Your task to perform on an android device: Search for pizza restaurants on Maps Image 0: 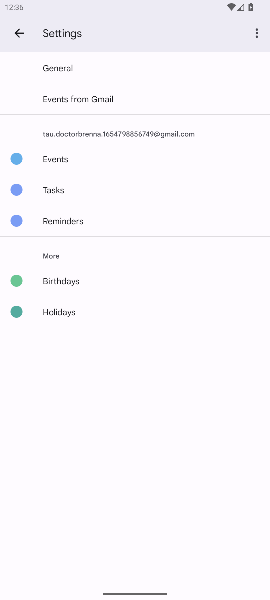
Step 0: press home button
Your task to perform on an android device: Search for pizza restaurants on Maps Image 1: 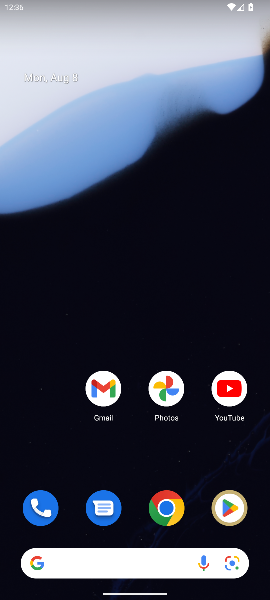
Step 1: drag from (216, 471) to (197, 188)
Your task to perform on an android device: Search for pizza restaurants on Maps Image 2: 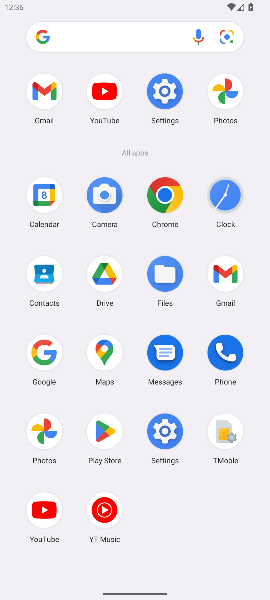
Step 2: click (109, 359)
Your task to perform on an android device: Search for pizza restaurants on Maps Image 3: 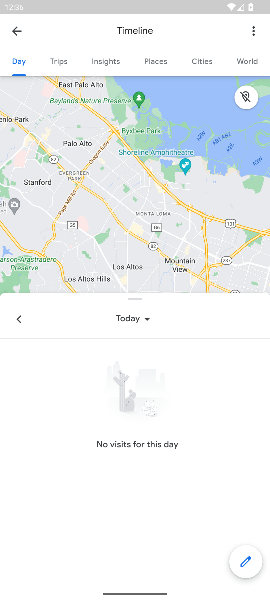
Step 3: click (14, 33)
Your task to perform on an android device: Search for pizza restaurants on Maps Image 4: 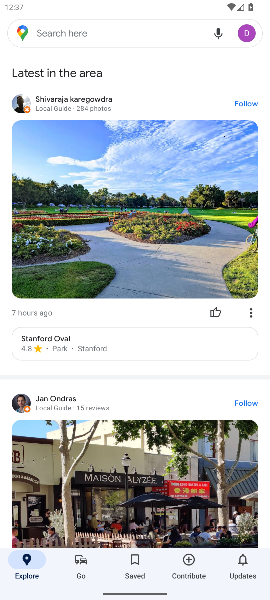
Step 4: click (150, 32)
Your task to perform on an android device: Search for pizza restaurants on Maps Image 5: 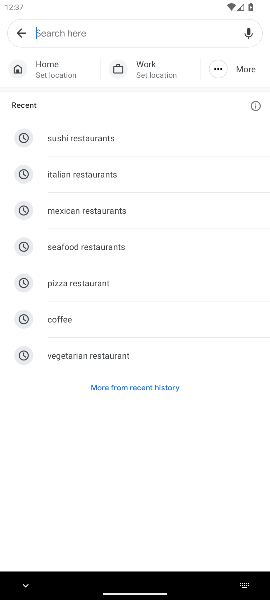
Step 5: click (114, 281)
Your task to perform on an android device: Search for pizza restaurants on Maps Image 6: 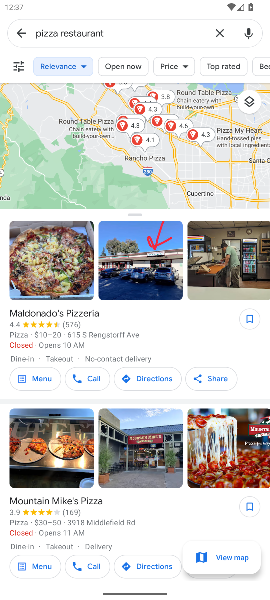
Step 6: task complete